Your task to perform on an android device: toggle notification dots Image 0: 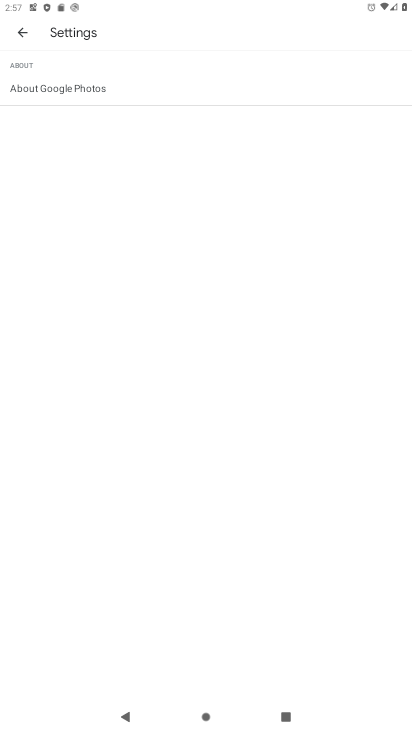
Step 0: press home button
Your task to perform on an android device: toggle notification dots Image 1: 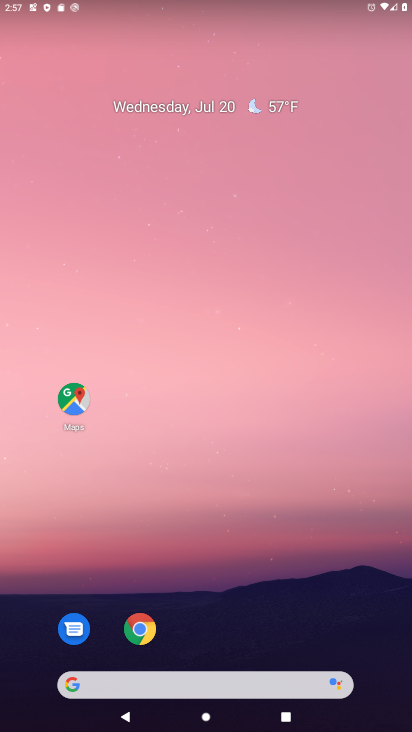
Step 1: drag from (386, 674) to (365, 169)
Your task to perform on an android device: toggle notification dots Image 2: 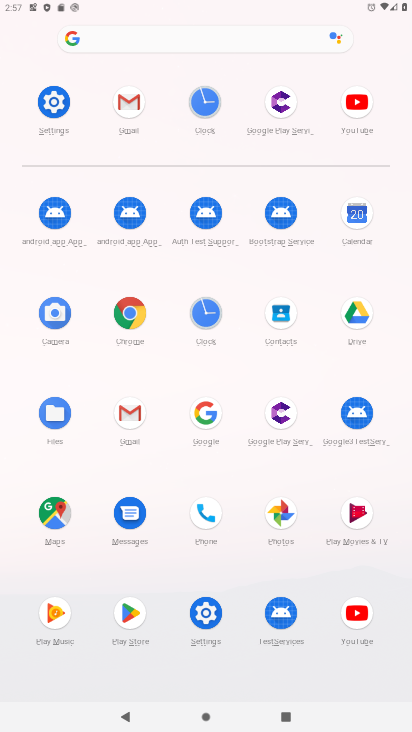
Step 2: click (205, 615)
Your task to perform on an android device: toggle notification dots Image 3: 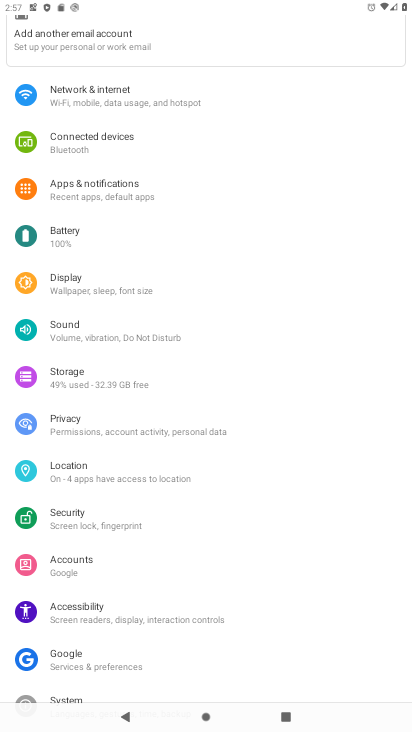
Step 3: click (68, 182)
Your task to perform on an android device: toggle notification dots Image 4: 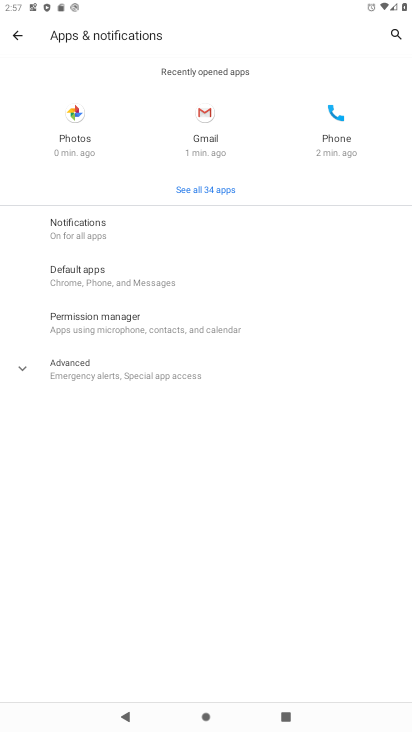
Step 4: click (60, 218)
Your task to perform on an android device: toggle notification dots Image 5: 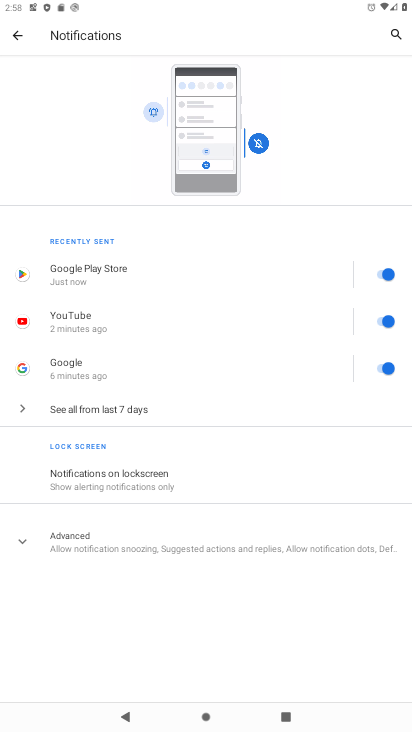
Step 5: click (20, 535)
Your task to perform on an android device: toggle notification dots Image 6: 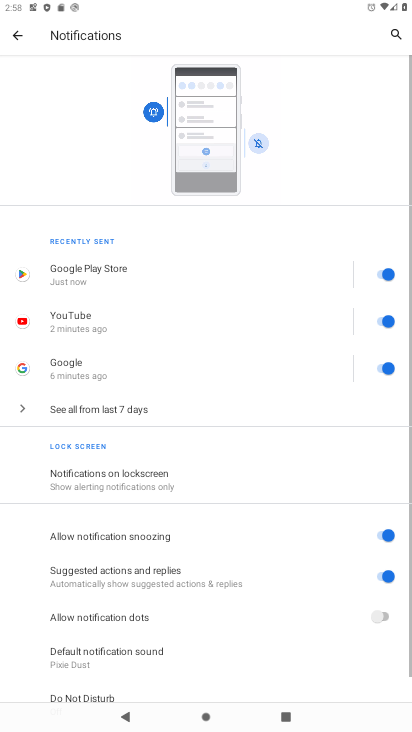
Step 6: drag from (258, 590) to (272, 278)
Your task to perform on an android device: toggle notification dots Image 7: 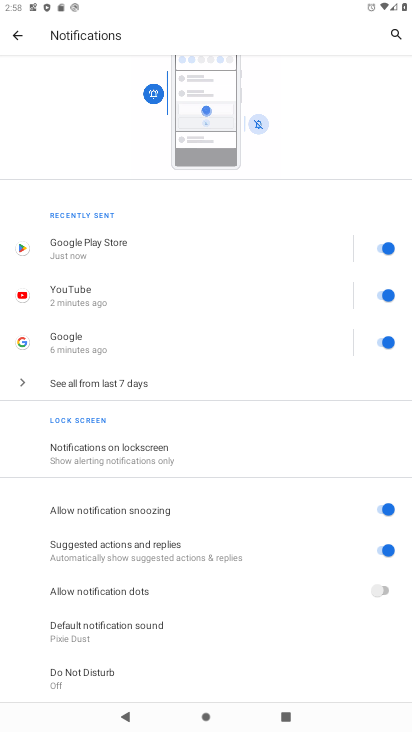
Step 7: click (384, 589)
Your task to perform on an android device: toggle notification dots Image 8: 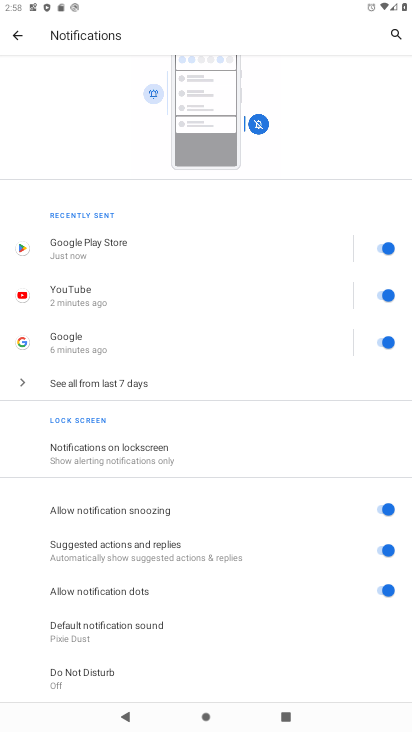
Step 8: task complete